Your task to perform on an android device: star an email in the gmail app Image 0: 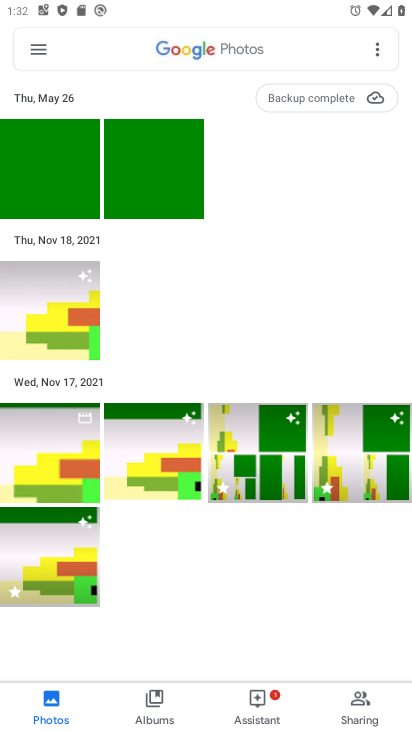
Step 0: press home button
Your task to perform on an android device: star an email in the gmail app Image 1: 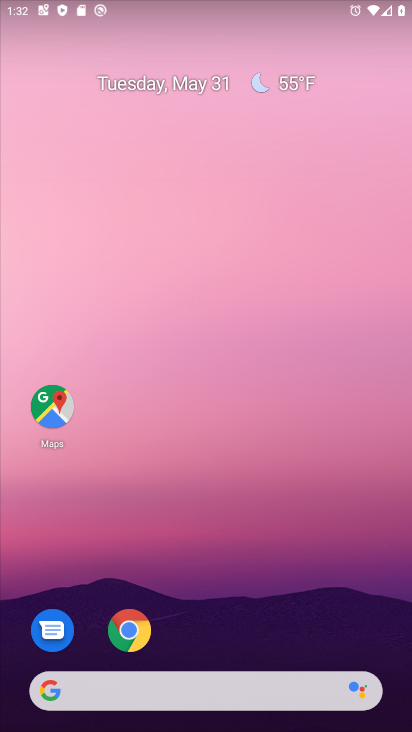
Step 1: drag from (206, 638) to (237, 148)
Your task to perform on an android device: star an email in the gmail app Image 2: 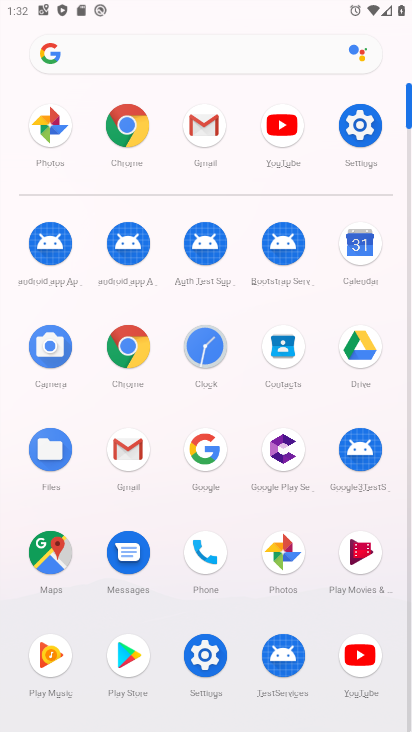
Step 2: click (204, 125)
Your task to perform on an android device: star an email in the gmail app Image 3: 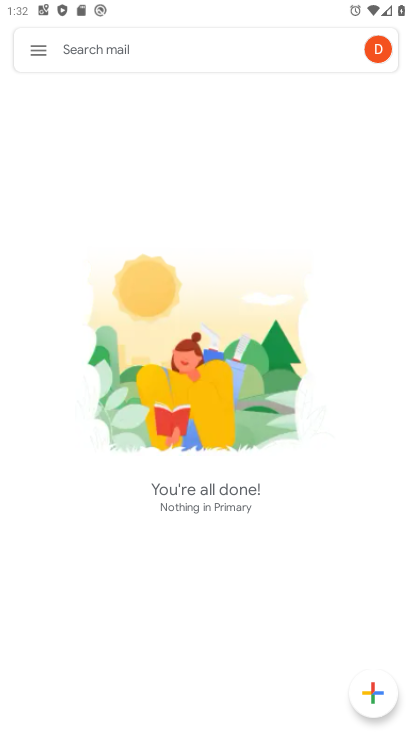
Step 3: task complete